Your task to perform on an android device: turn on sleep mode Image 0: 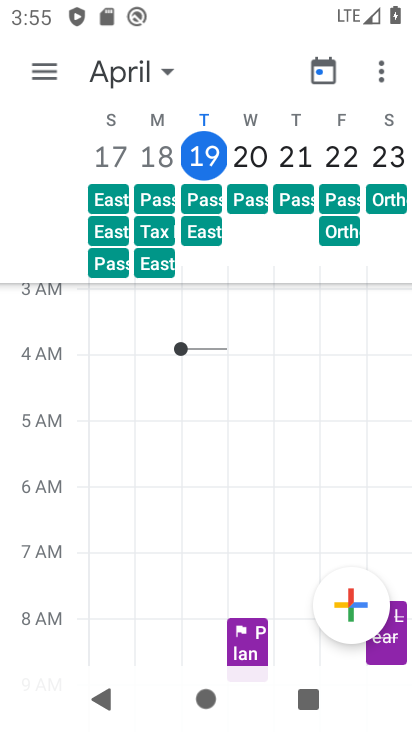
Step 0: press home button
Your task to perform on an android device: turn on sleep mode Image 1: 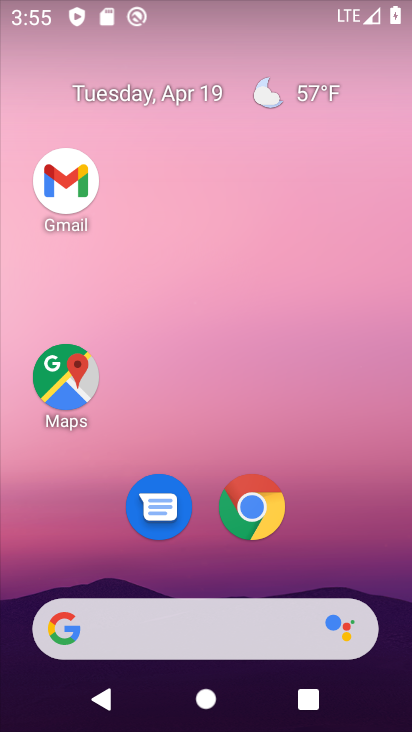
Step 1: drag from (239, 585) to (297, 100)
Your task to perform on an android device: turn on sleep mode Image 2: 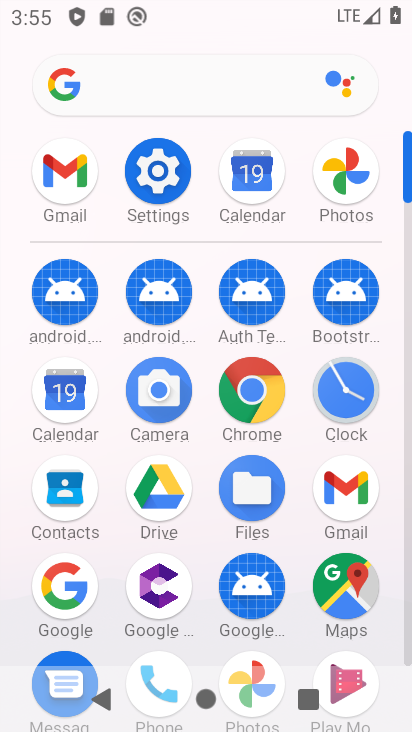
Step 2: click (143, 181)
Your task to perform on an android device: turn on sleep mode Image 3: 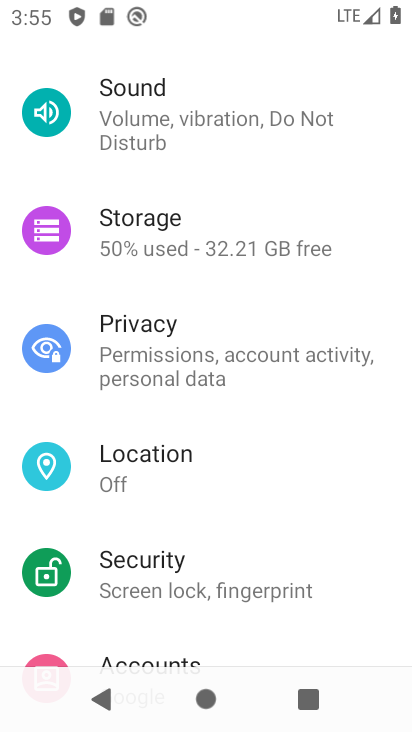
Step 3: drag from (236, 539) to (258, 133)
Your task to perform on an android device: turn on sleep mode Image 4: 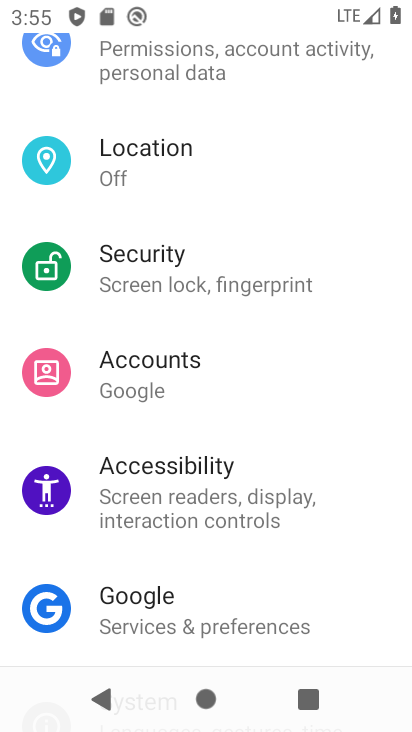
Step 4: drag from (260, 128) to (223, 604)
Your task to perform on an android device: turn on sleep mode Image 5: 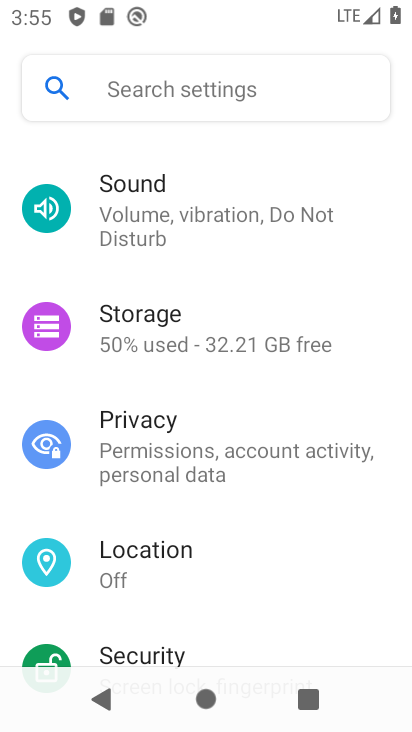
Step 5: drag from (245, 235) to (239, 614)
Your task to perform on an android device: turn on sleep mode Image 6: 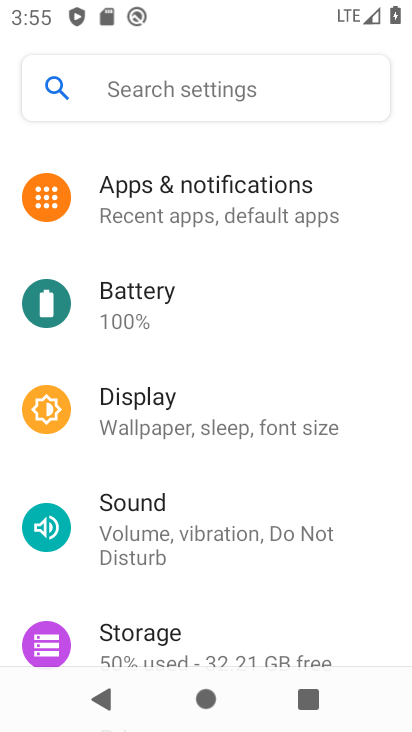
Step 6: click (224, 430)
Your task to perform on an android device: turn on sleep mode Image 7: 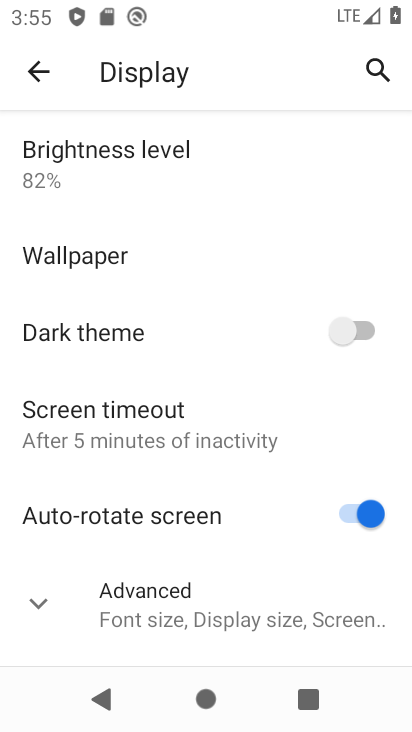
Step 7: click (224, 430)
Your task to perform on an android device: turn on sleep mode Image 8: 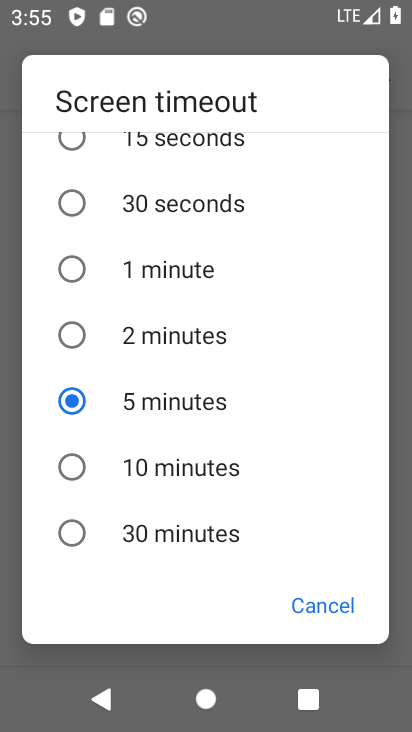
Step 8: task complete